Your task to perform on an android device: Open the calendar and show me this week's events? Image 0: 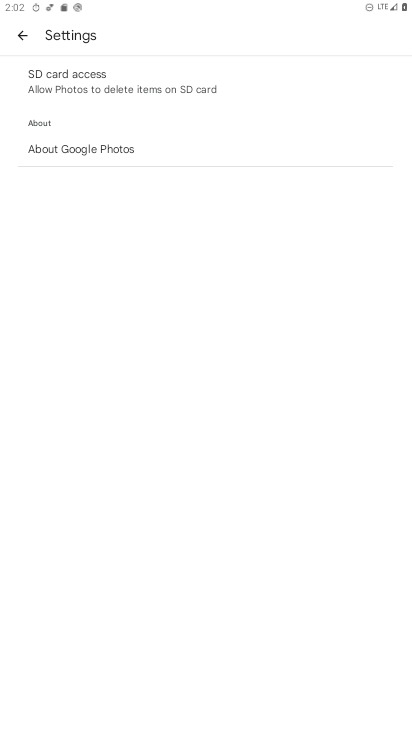
Step 0: press home button
Your task to perform on an android device: Open the calendar and show me this week's events? Image 1: 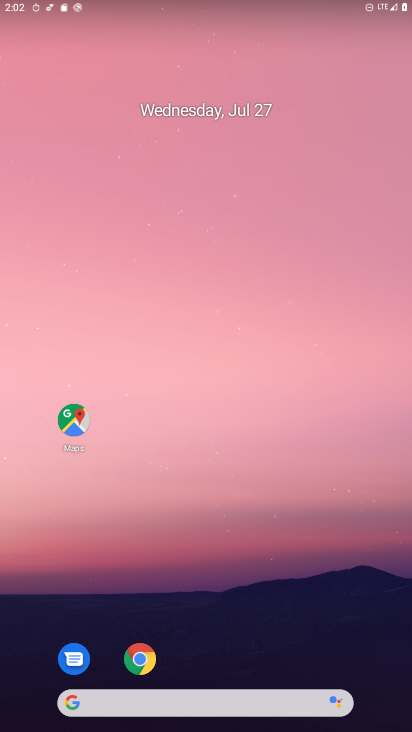
Step 1: drag from (261, 568) to (196, 47)
Your task to perform on an android device: Open the calendar and show me this week's events? Image 2: 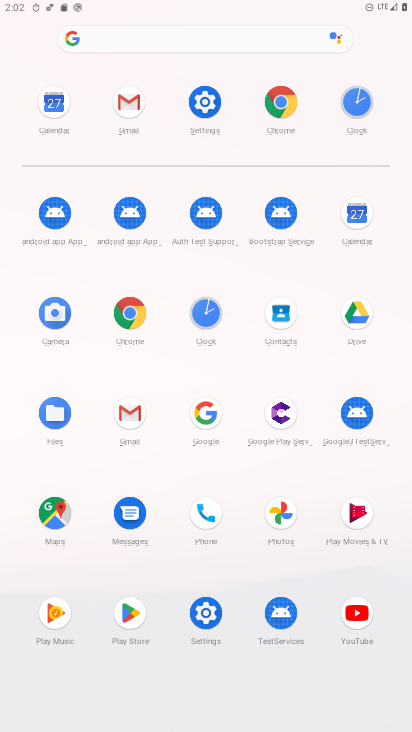
Step 2: click (366, 217)
Your task to perform on an android device: Open the calendar and show me this week's events? Image 3: 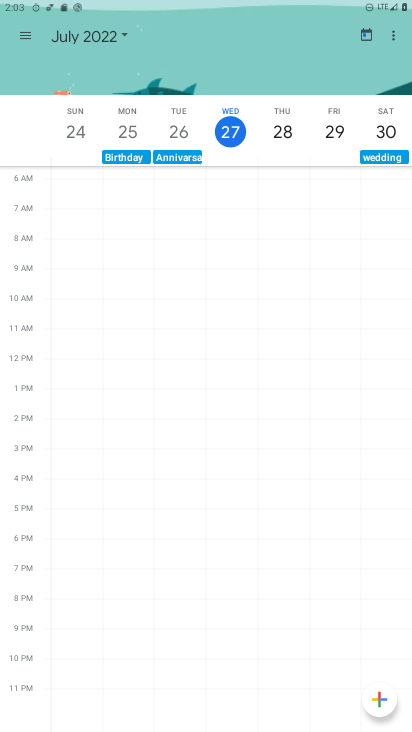
Step 3: task complete